Your task to perform on an android device: Open Google Image 0: 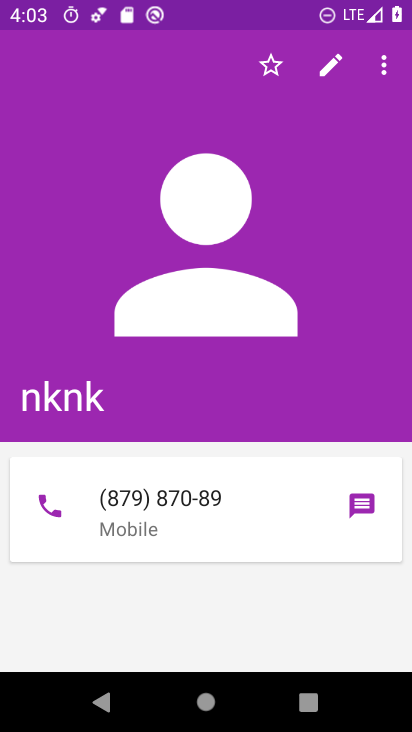
Step 0: press home button
Your task to perform on an android device: Open Google Image 1: 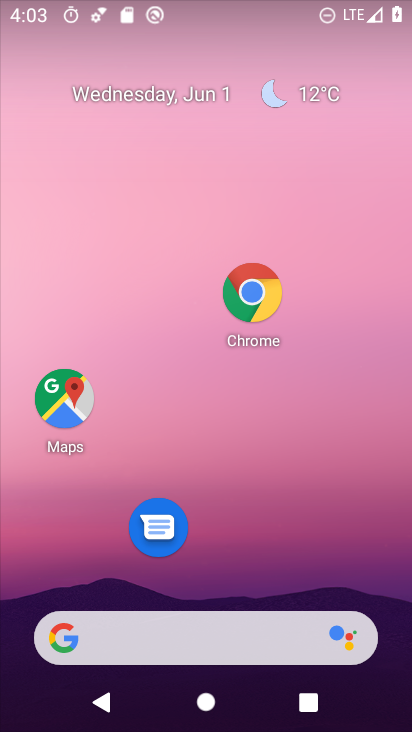
Step 1: drag from (234, 601) to (321, 15)
Your task to perform on an android device: Open Google Image 2: 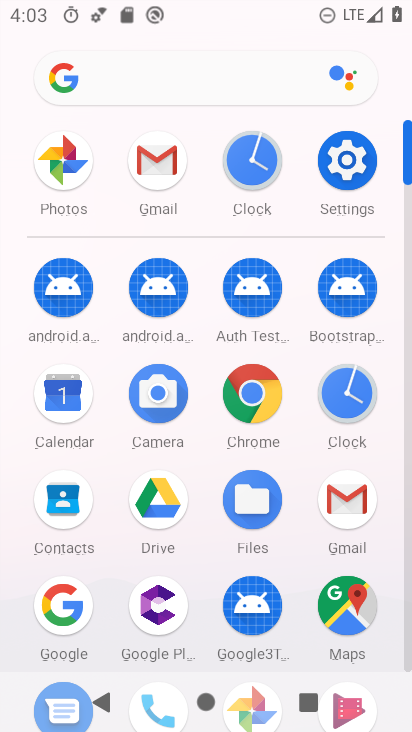
Step 2: drag from (216, 512) to (267, 206)
Your task to perform on an android device: Open Google Image 3: 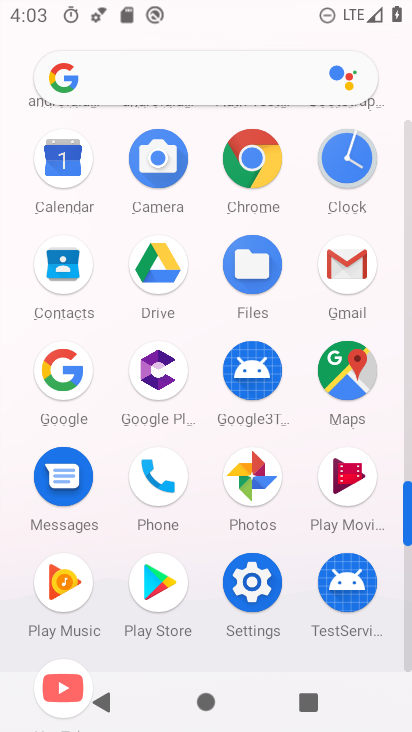
Step 3: click (76, 369)
Your task to perform on an android device: Open Google Image 4: 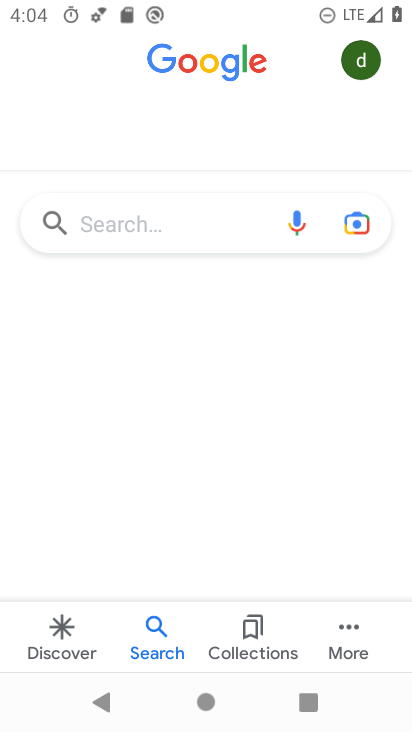
Step 4: task complete